Your task to perform on an android device: check out phone information Image 0: 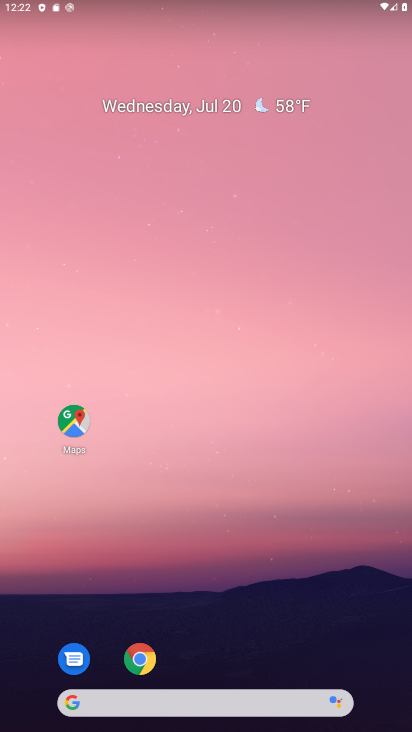
Step 0: drag from (201, 604) to (196, 109)
Your task to perform on an android device: check out phone information Image 1: 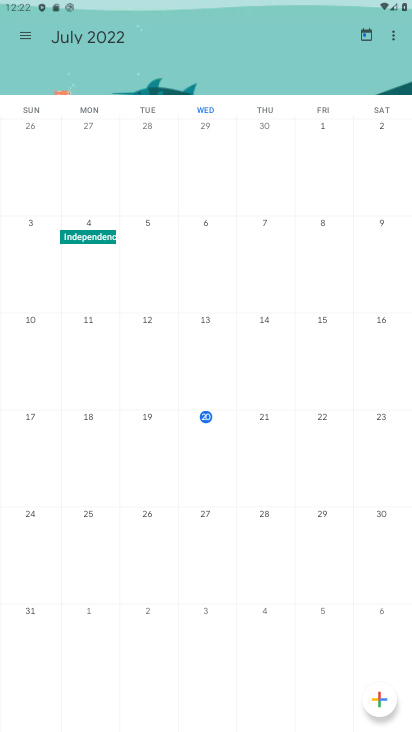
Step 1: press home button
Your task to perform on an android device: check out phone information Image 2: 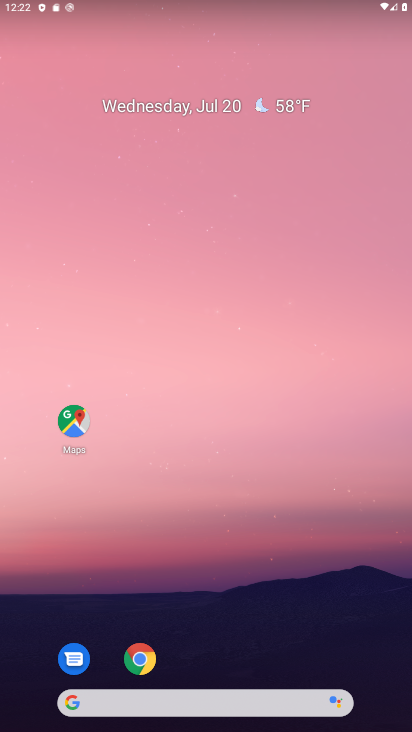
Step 2: drag from (229, 643) to (228, 139)
Your task to perform on an android device: check out phone information Image 3: 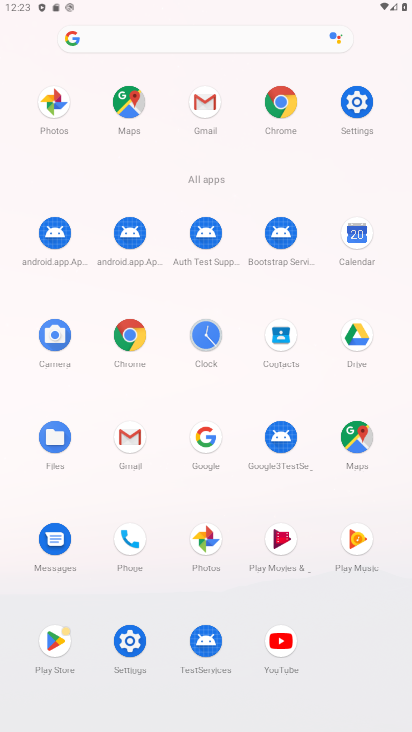
Step 3: click (354, 104)
Your task to perform on an android device: check out phone information Image 4: 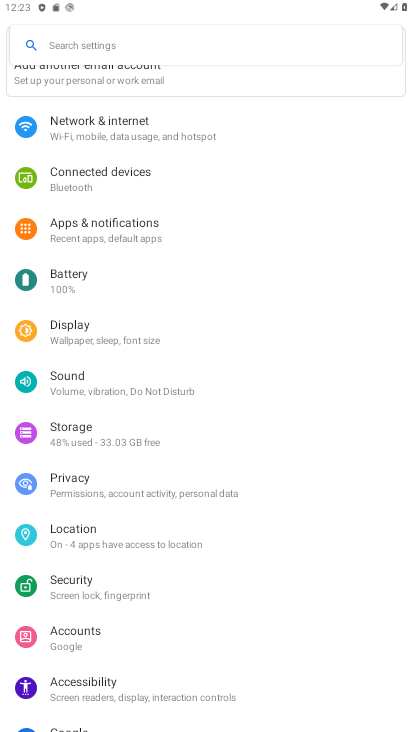
Step 4: drag from (144, 658) to (215, 205)
Your task to perform on an android device: check out phone information Image 5: 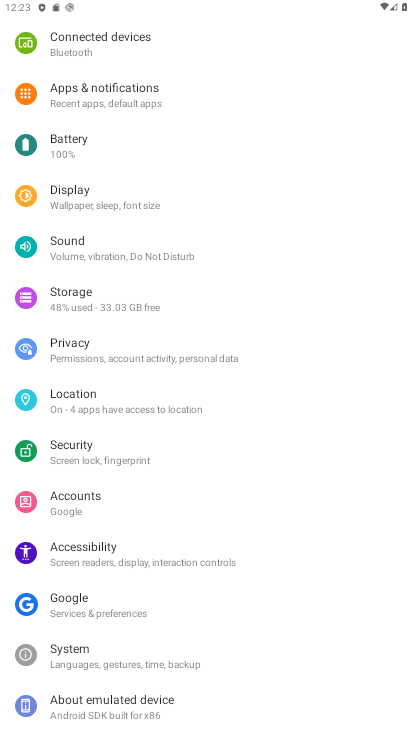
Step 5: click (156, 709)
Your task to perform on an android device: check out phone information Image 6: 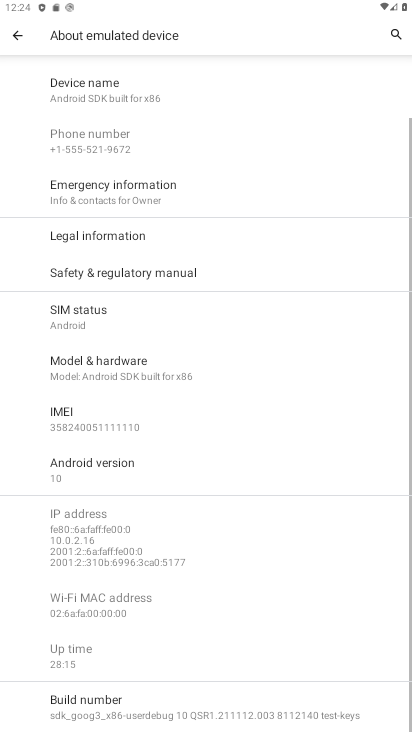
Step 6: task complete